Your task to perform on an android device: toggle sleep mode Image 0: 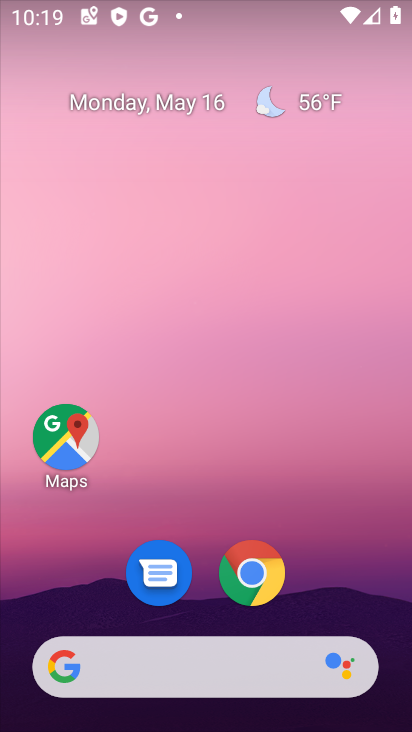
Step 0: drag from (228, 9) to (255, 612)
Your task to perform on an android device: toggle sleep mode Image 1: 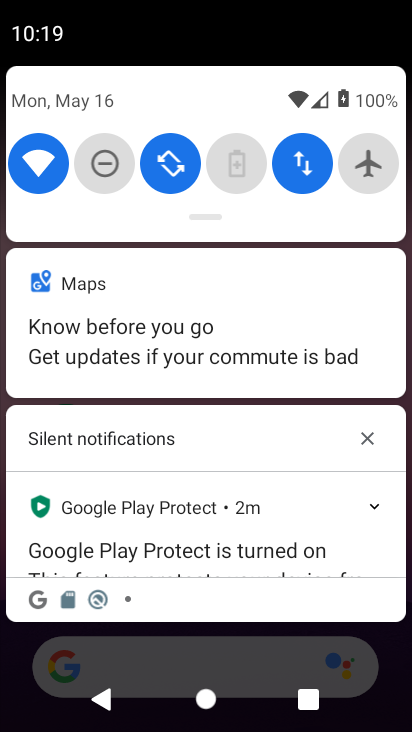
Step 1: drag from (234, 215) to (228, 576)
Your task to perform on an android device: toggle sleep mode Image 2: 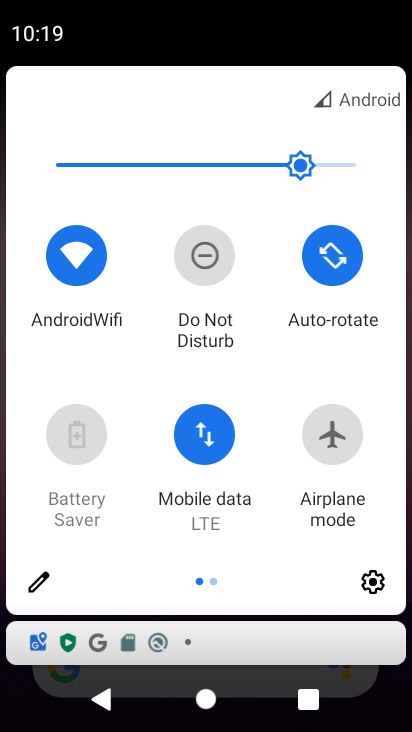
Step 2: drag from (372, 389) to (93, 406)
Your task to perform on an android device: toggle sleep mode Image 3: 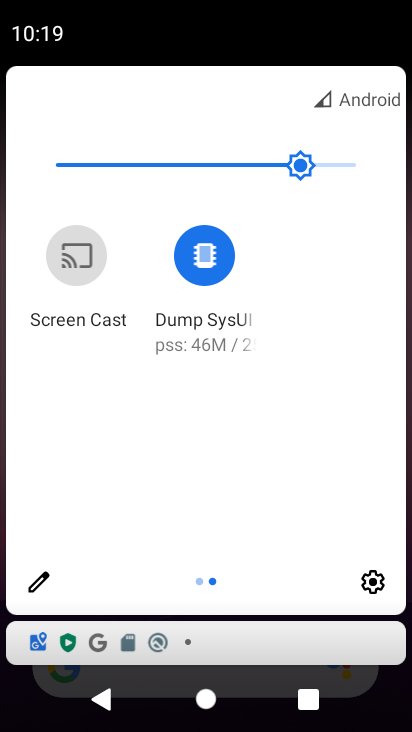
Step 3: click (36, 589)
Your task to perform on an android device: toggle sleep mode Image 4: 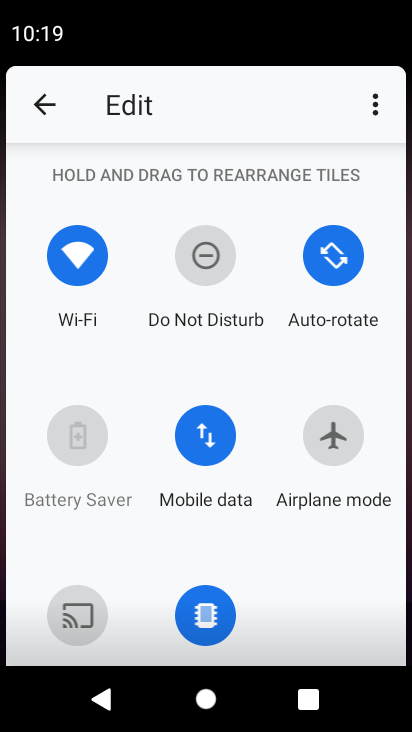
Step 4: task complete